Your task to perform on an android device: toggle translation in the chrome app Image 0: 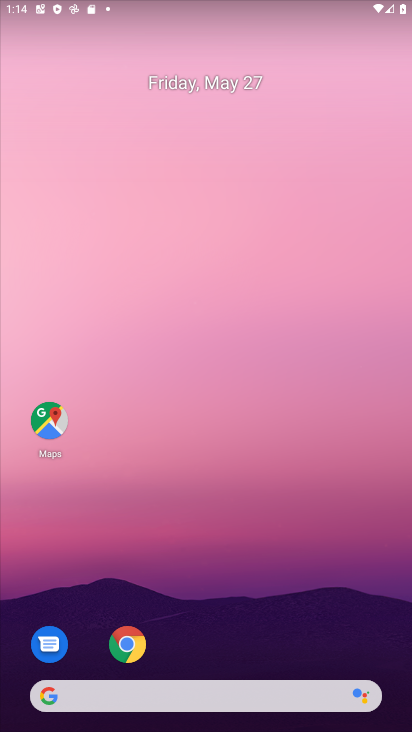
Step 0: drag from (314, 640) to (271, 43)
Your task to perform on an android device: toggle translation in the chrome app Image 1: 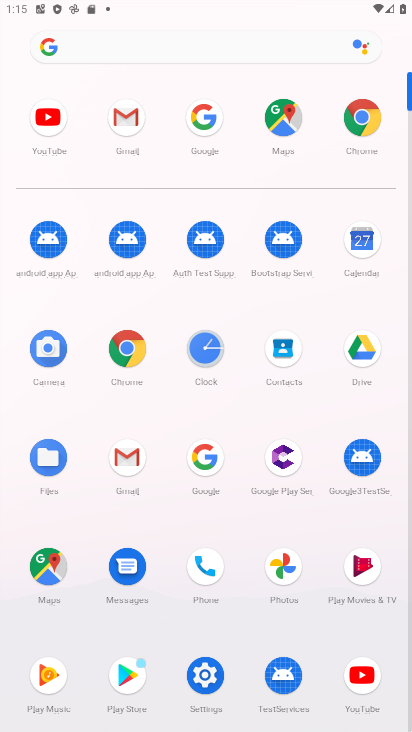
Step 1: click (129, 356)
Your task to perform on an android device: toggle translation in the chrome app Image 2: 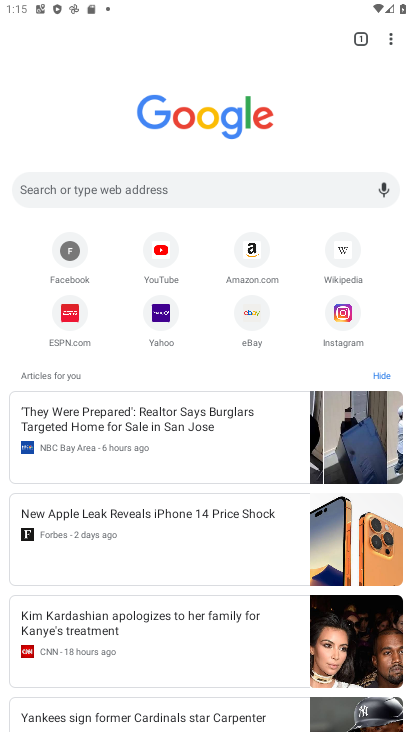
Step 2: click (389, 37)
Your task to perform on an android device: toggle translation in the chrome app Image 3: 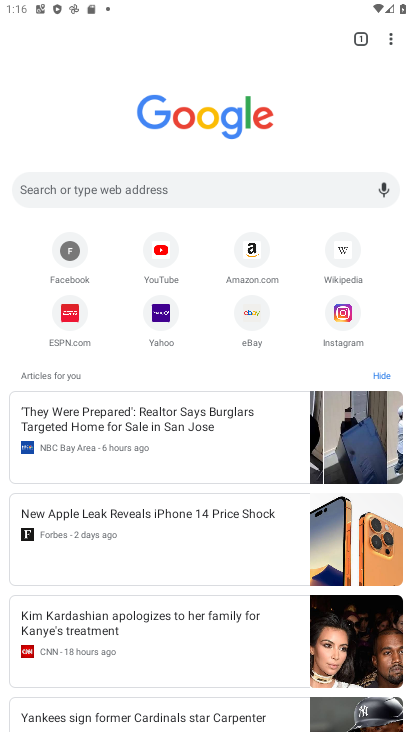
Step 3: click (388, 37)
Your task to perform on an android device: toggle translation in the chrome app Image 4: 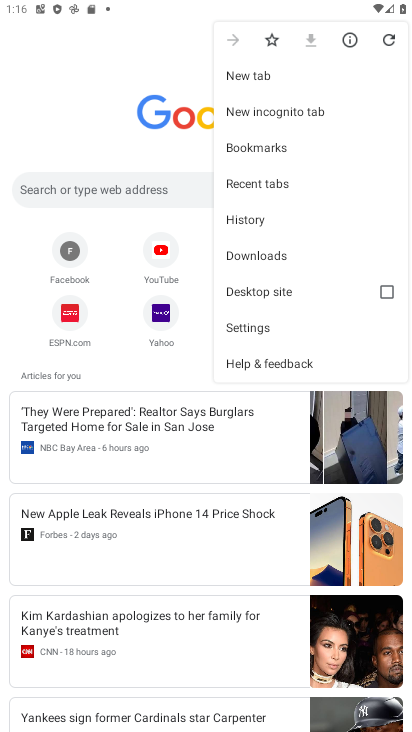
Step 4: click (254, 339)
Your task to perform on an android device: toggle translation in the chrome app Image 5: 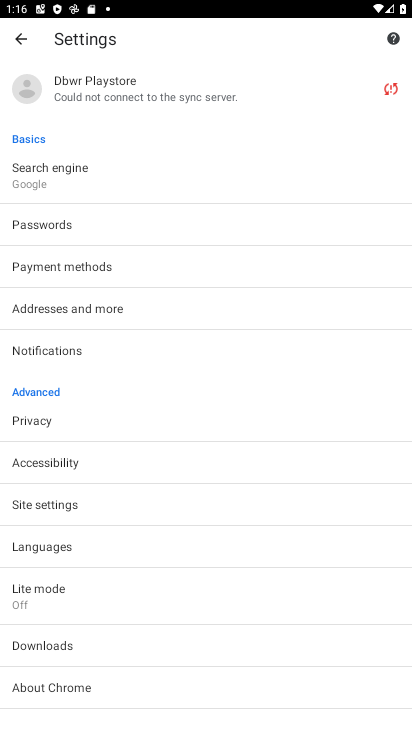
Step 5: click (119, 556)
Your task to perform on an android device: toggle translation in the chrome app Image 6: 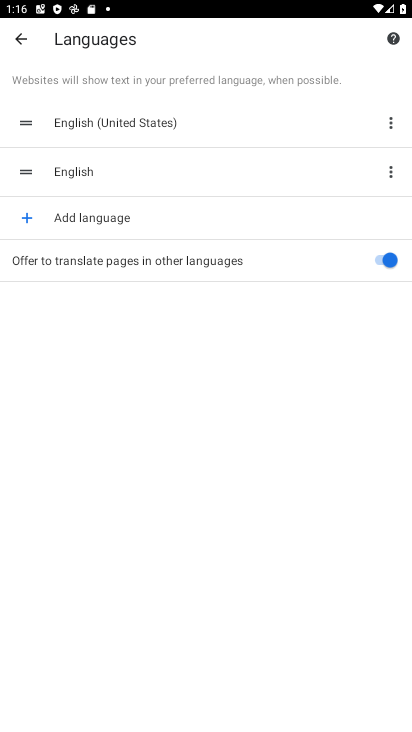
Step 6: click (361, 253)
Your task to perform on an android device: toggle translation in the chrome app Image 7: 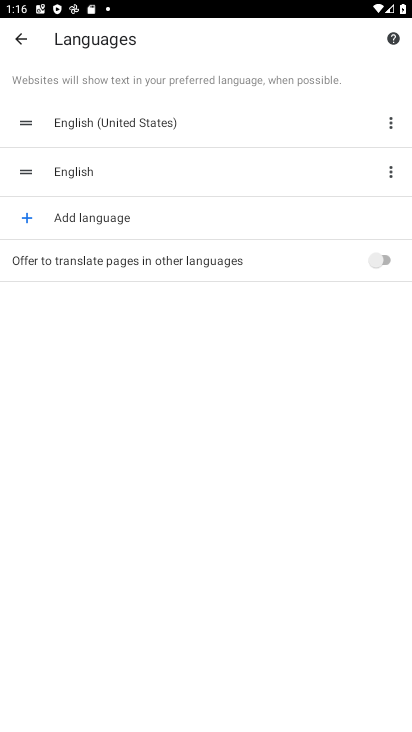
Step 7: task complete